Your task to perform on an android device: turn off sleep mode Image 0: 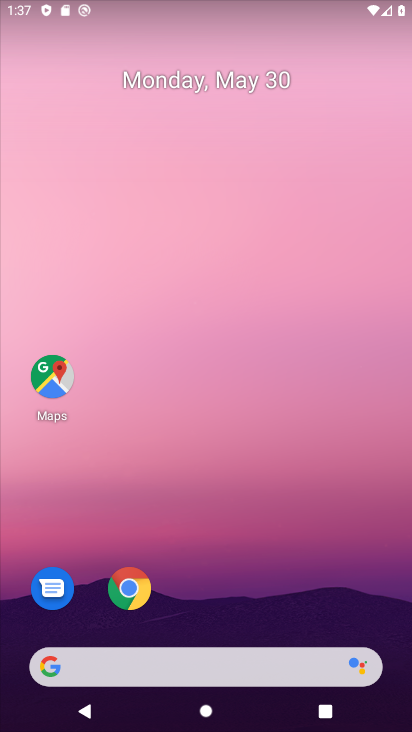
Step 0: drag from (257, 541) to (84, 37)
Your task to perform on an android device: turn off sleep mode Image 1: 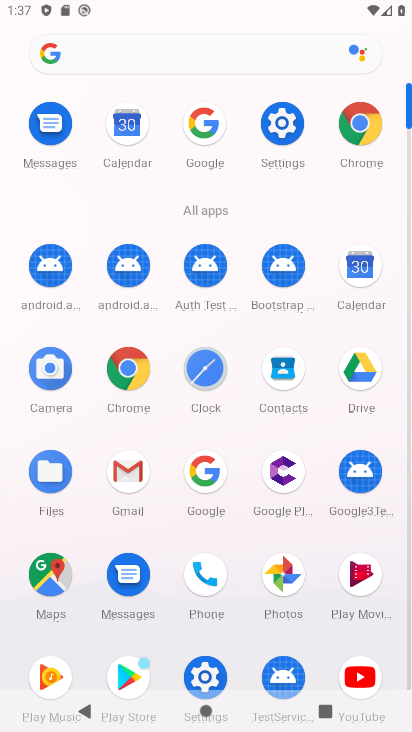
Step 1: click (276, 145)
Your task to perform on an android device: turn off sleep mode Image 2: 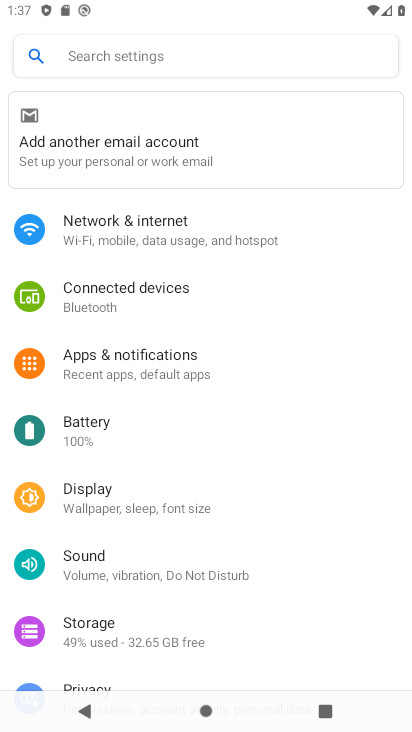
Step 2: click (148, 499)
Your task to perform on an android device: turn off sleep mode Image 3: 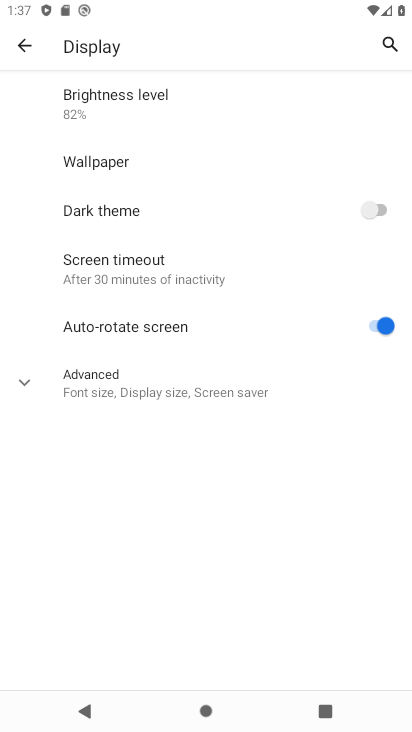
Step 3: task complete